Your task to perform on an android device: check storage Image 0: 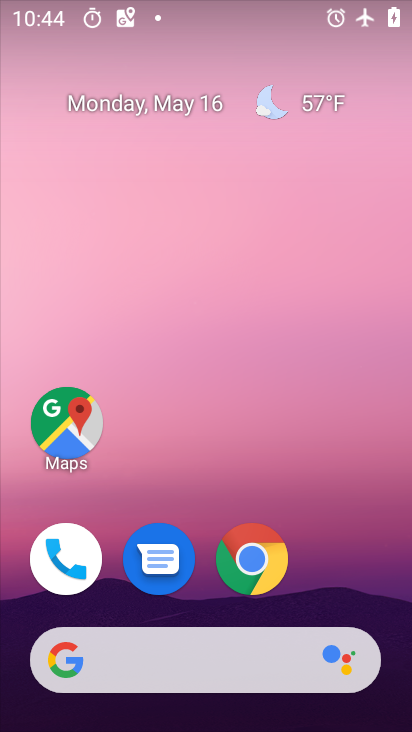
Step 0: drag from (343, 555) to (232, 131)
Your task to perform on an android device: check storage Image 1: 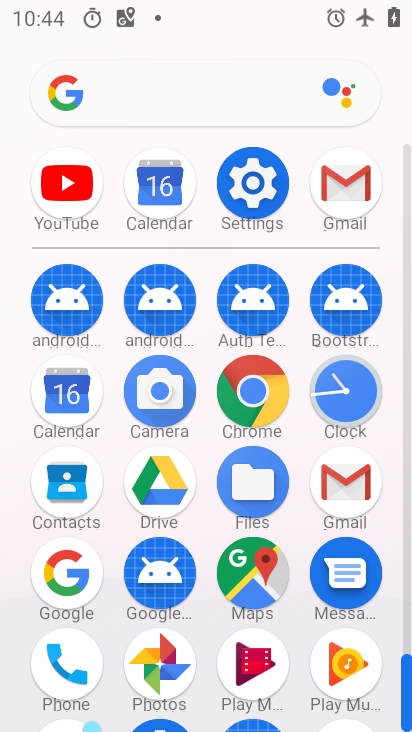
Step 1: click (240, 187)
Your task to perform on an android device: check storage Image 2: 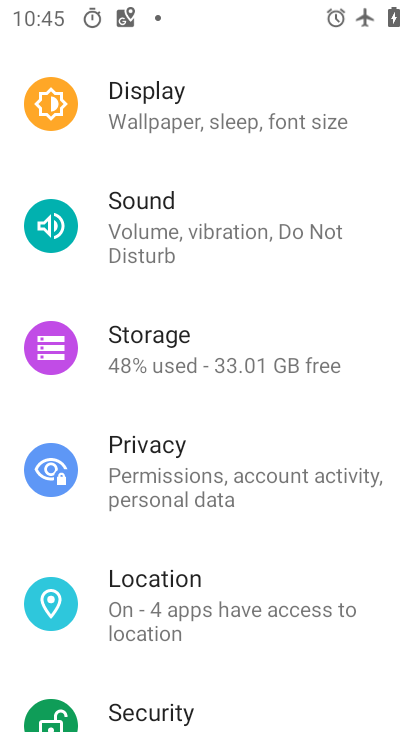
Step 2: click (215, 369)
Your task to perform on an android device: check storage Image 3: 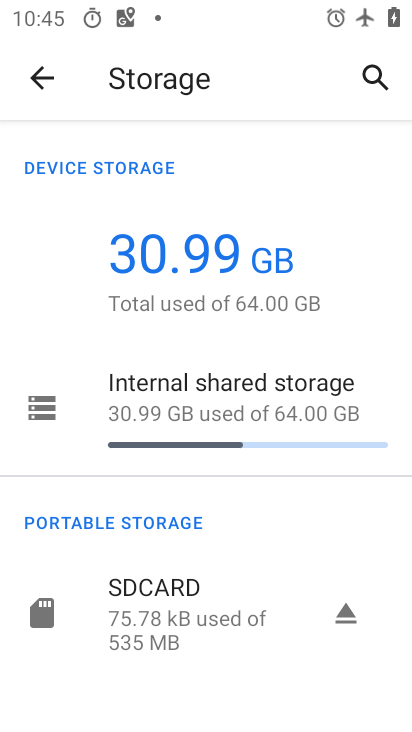
Step 3: task complete